Your task to perform on an android device: Open calendar and show me the third week of next month Image 0: 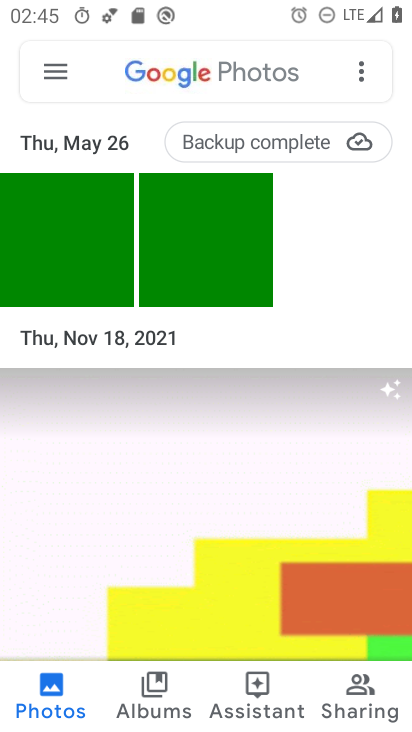
Step 0: press home button
Your task to perform on an android device: Open calendar and show me the third week of next month Image 1: 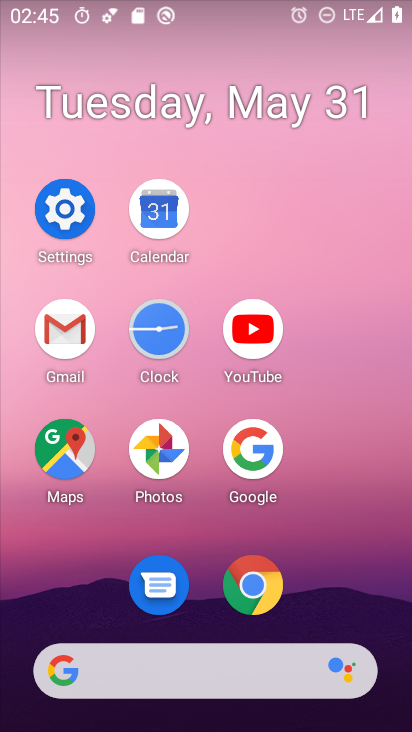
Step 1: click (173, 223)
Your task to perform on an android device: Open calendar and show me the third week of next month Image 2: 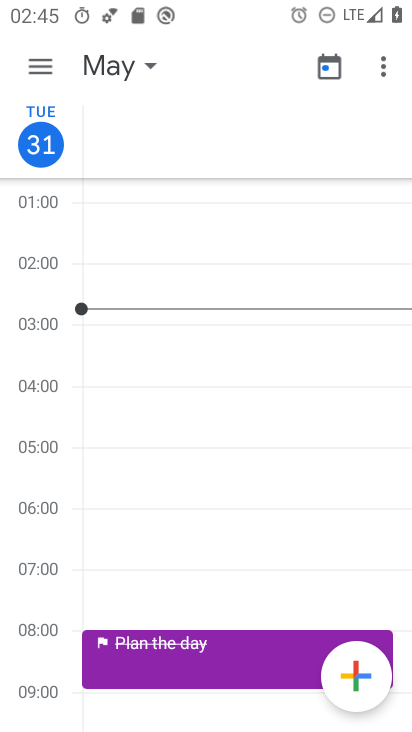
Step 2: click (153, 85)
Your task to perform on an android device: Open calendar and show me the third week of next month Image 3: 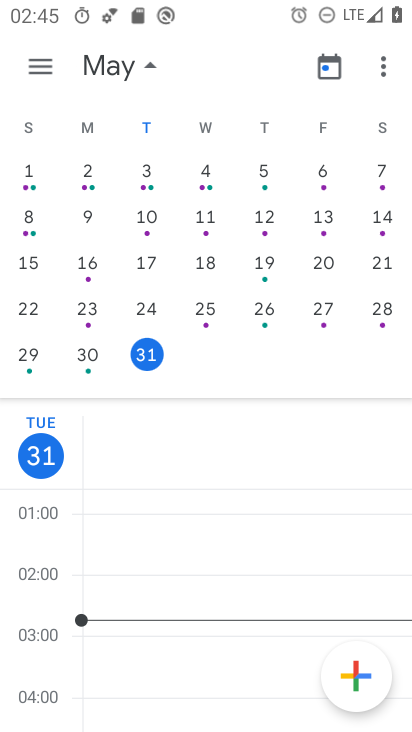
Step 3: drag from (383, 253) to (33, 255)
Your task to perform on an android device: Open calendar and show me the third week of next month Image 4: 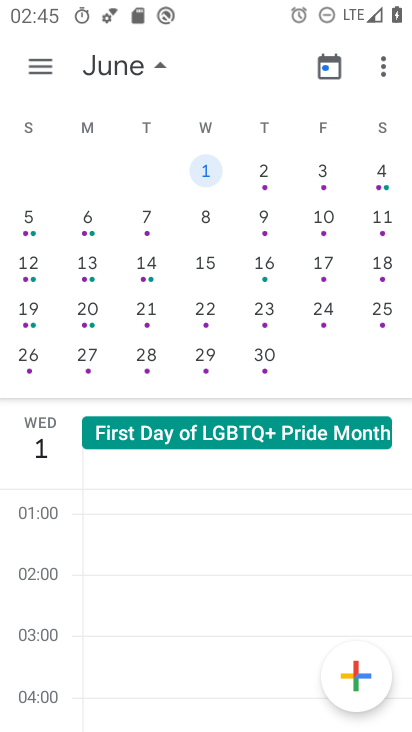
Step 4: click (51, 65)
Your task to perform on an android device: Open calendar and show me the third week of next month Image 5: 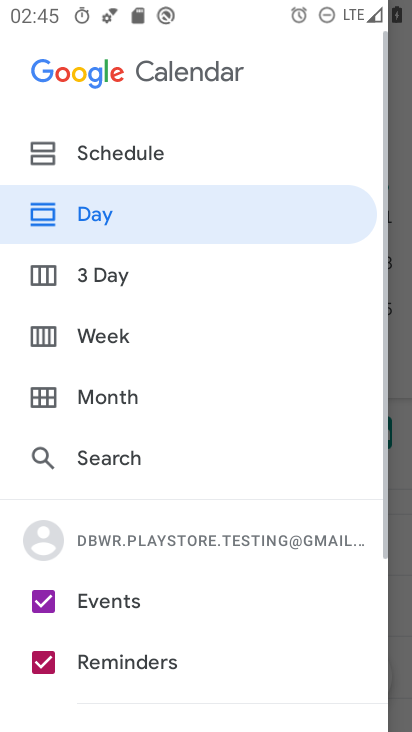
Step 5: click (123, 327)
Your task to perform on an android device: Open calendar and show me the third week of next month Image 6: 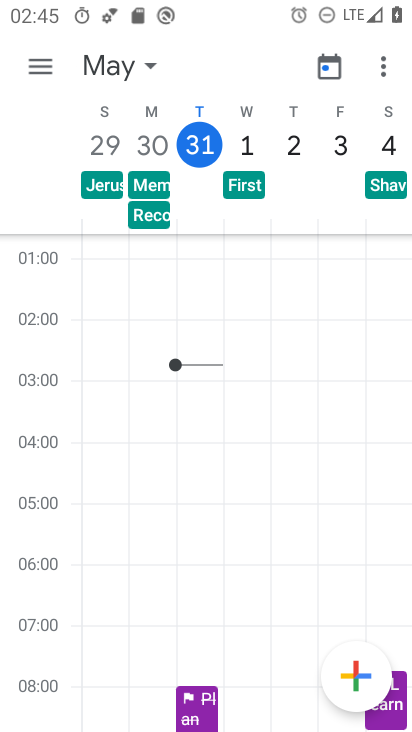
Step 6: task complete